Your task to perform on an android device: Go to Yahoo.com Image 0: 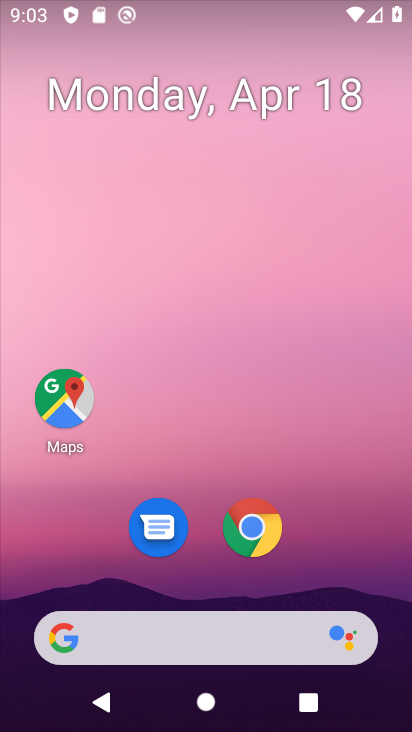
Step 0: click (240, 542)
Your task to perform on an android device: Go to Yahoo.com Image 1: 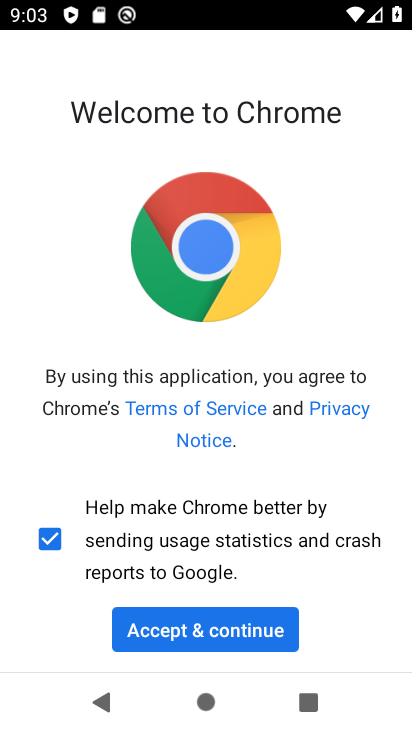
Step 1: click (171, 619)
Your task to perform on an android device: Go to Yahoo.com Image 2: 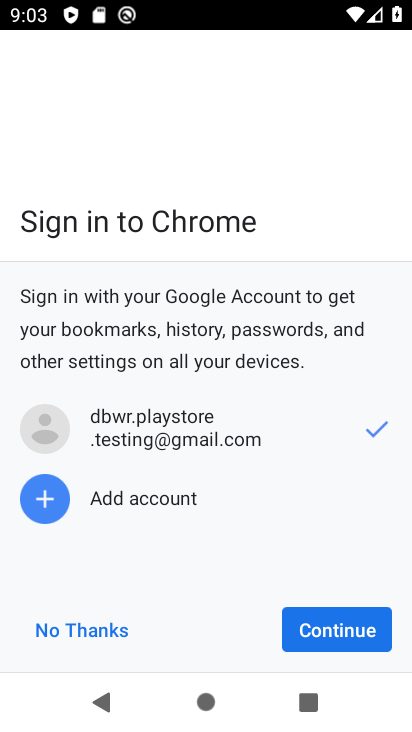
Step 2: click (338, 635)
Your task to perform on an android device: Go to Yahoo.com Image 3: 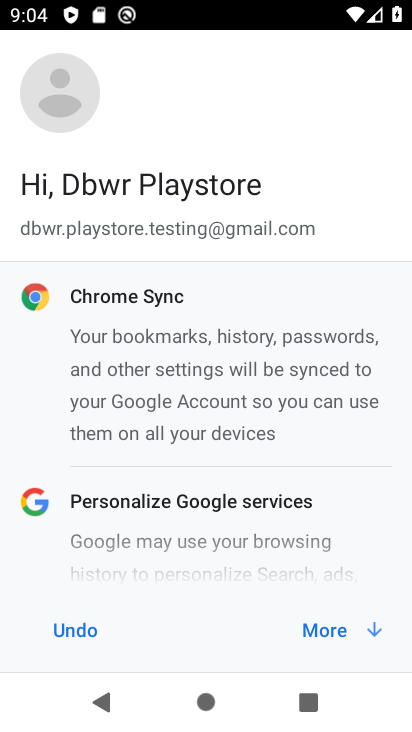
Step 3: click (335, 622)
Your task to perform on an android device: Go to Yahoo.com Image 4: 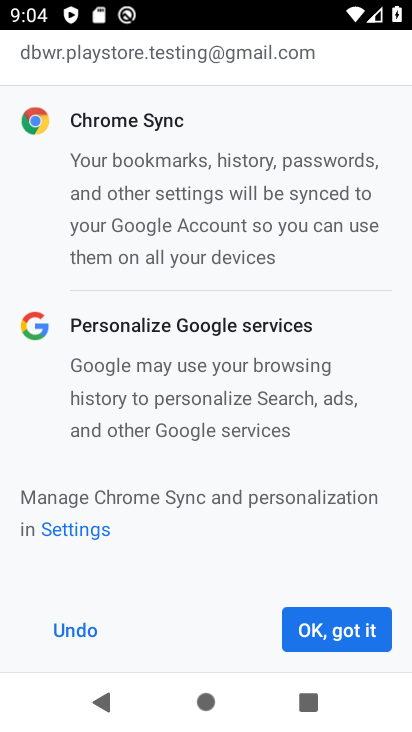
Step 4: click (323, 632)
Your task to perform on an android device: Go to Yahoo.com Image 5: 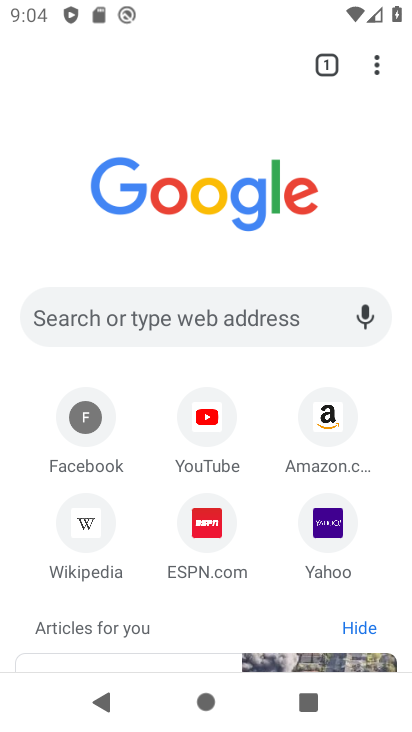
Step 5: click (321, 520)
Your task to perform on an android device: Go to Yahoo.com Image 6: 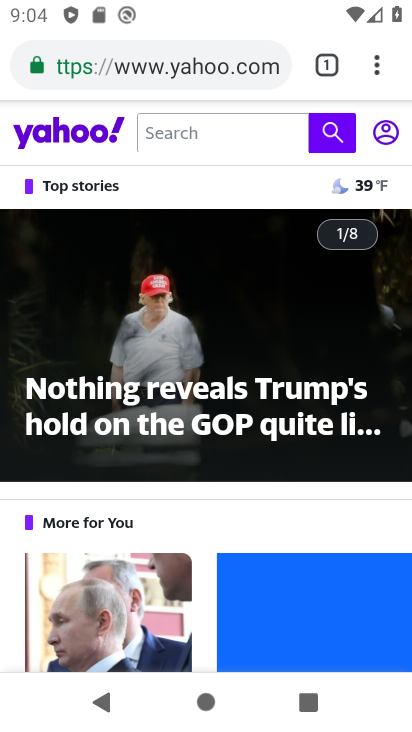
Step 6: task complete